Your task to perform on an android device: Show me productivity apps on the Play Store Image 0: 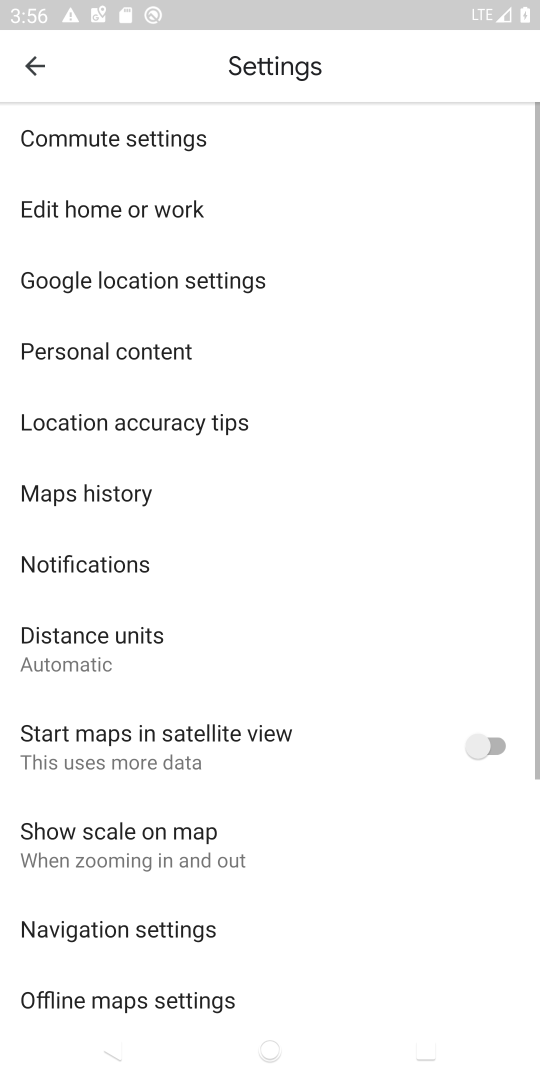
Step 0: press back button
Your task to perform on an android device: Show me productivity apps on the Play Store Image 1: 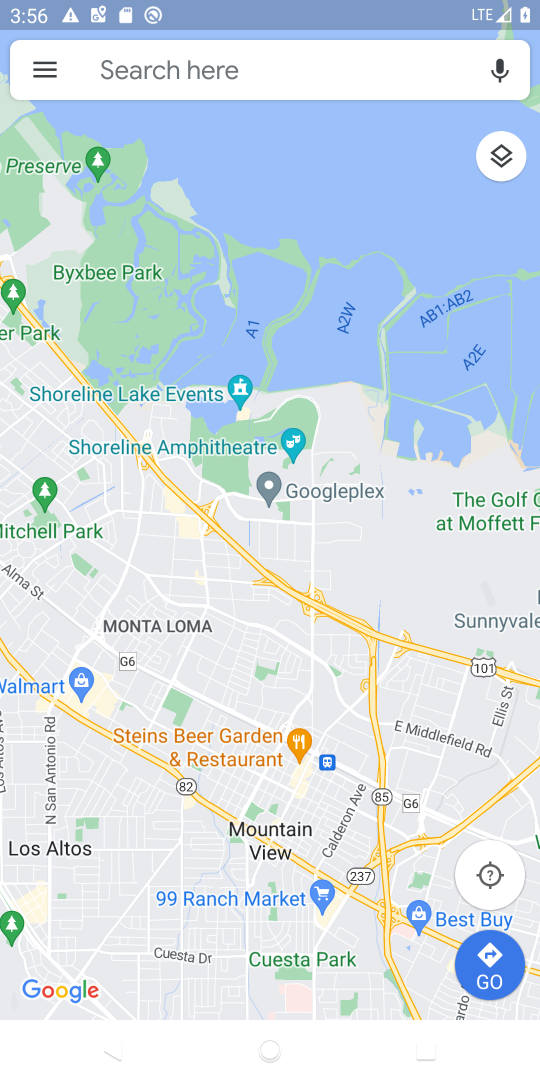
Step 1: press back button
Your task to perform on an android device: Show me productivity apps on the Play Store Image 2: 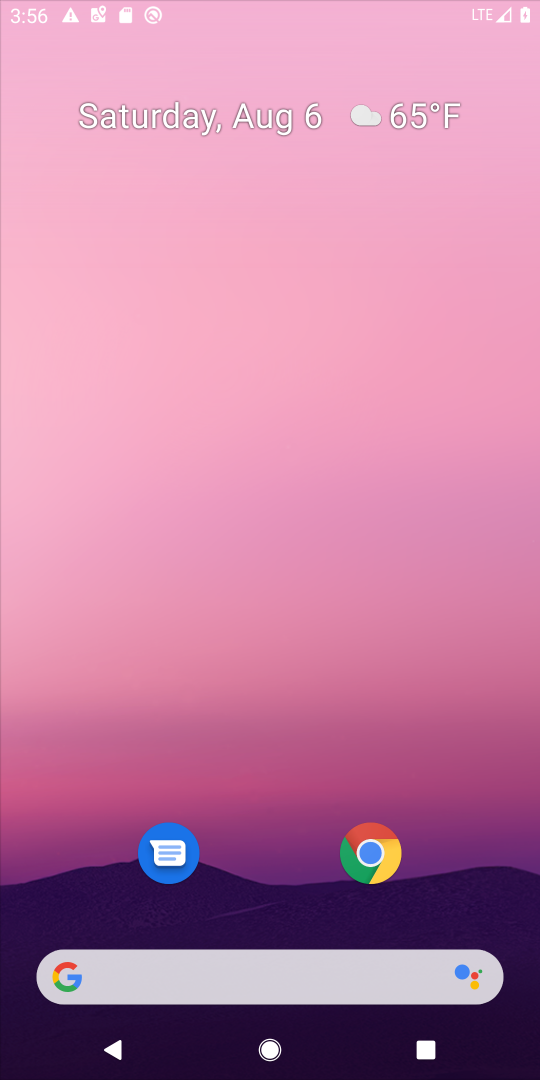
Step 2: press home button
Your task to perform on an android device: Show me productivity apps on the Play Store Image 3: 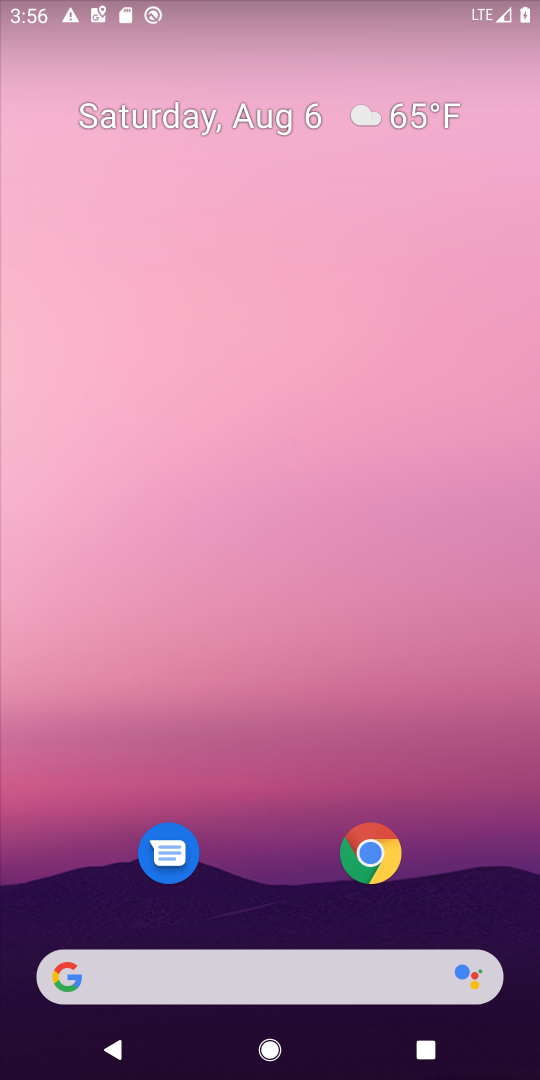
Step 3: drag from (273, 717) to (267, 63)
Your task to perform on an android device: Show me productivity apps on the Play Store Image 4: 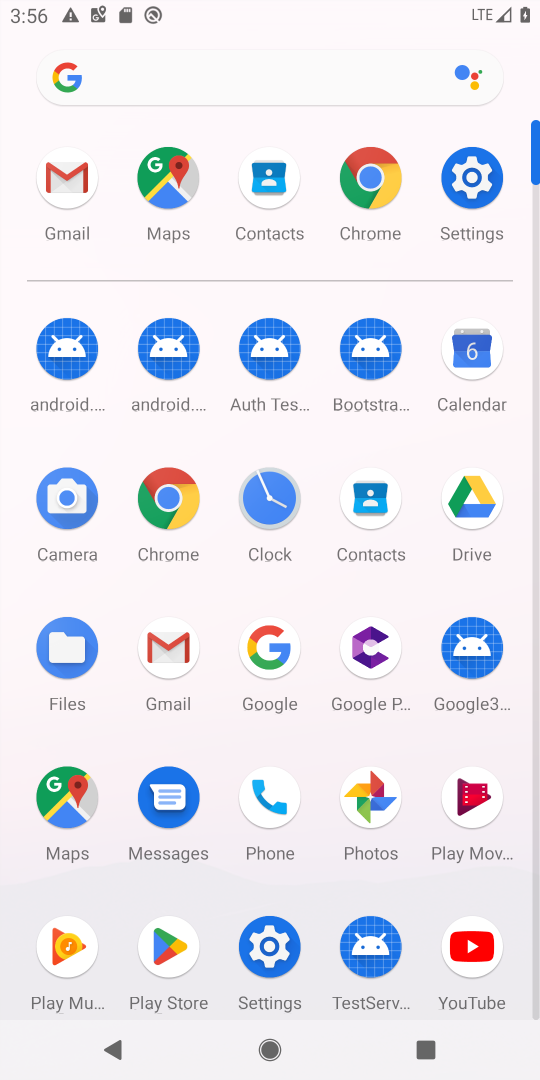
Step 4: click (157, 949)
Your task to perform on an android device: Show me productivity apps on the Play Store Image 5: 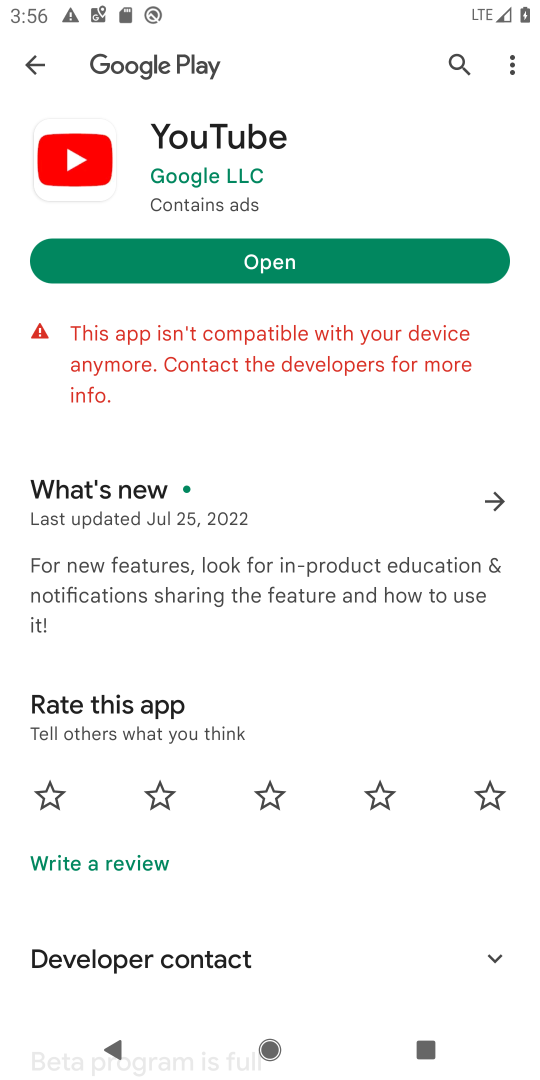
Step 5: click (38, 59)
Your task to perform on an android device: Show me productivity apps on the Play Store Image 6: 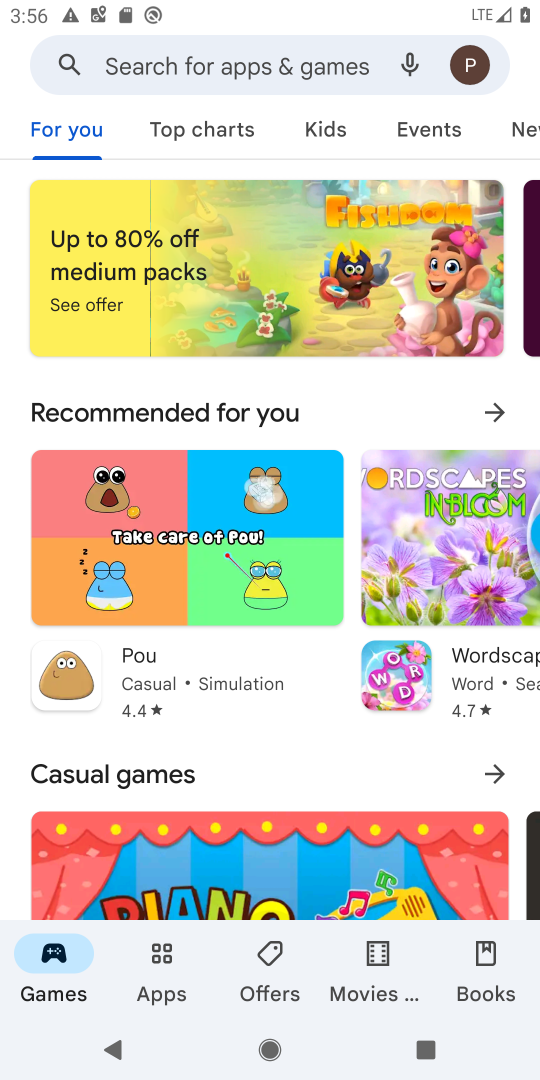
Step 6: click (166, 952)
Your task to perform on an android device: Show me productivity apps on the Play Store Image 7: 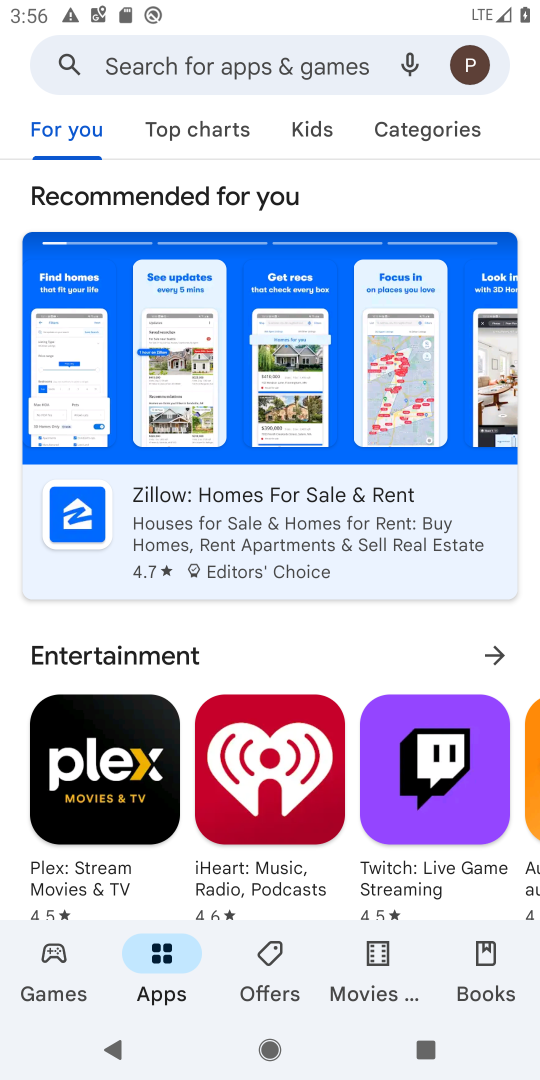
Step 7: drag from (213, 851) to (296, 115)
Your task to perform on an android device: Show me productivity apps on the Play Store Image 8: 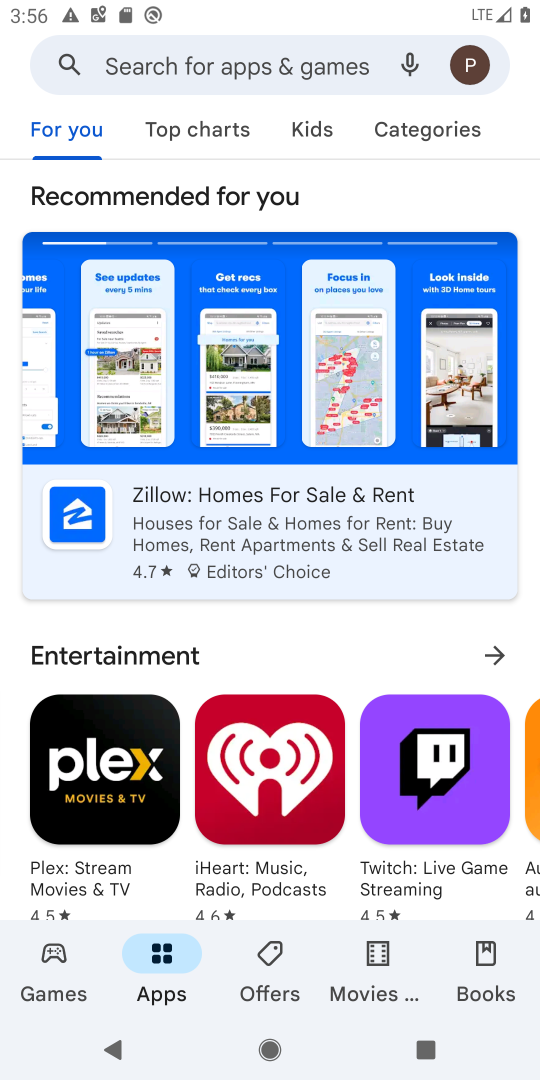
Step 8: drag from (275, 511) to (325, 171)
Your task to perform on an android device: Show me productivity apps on the Play Store Image 9: 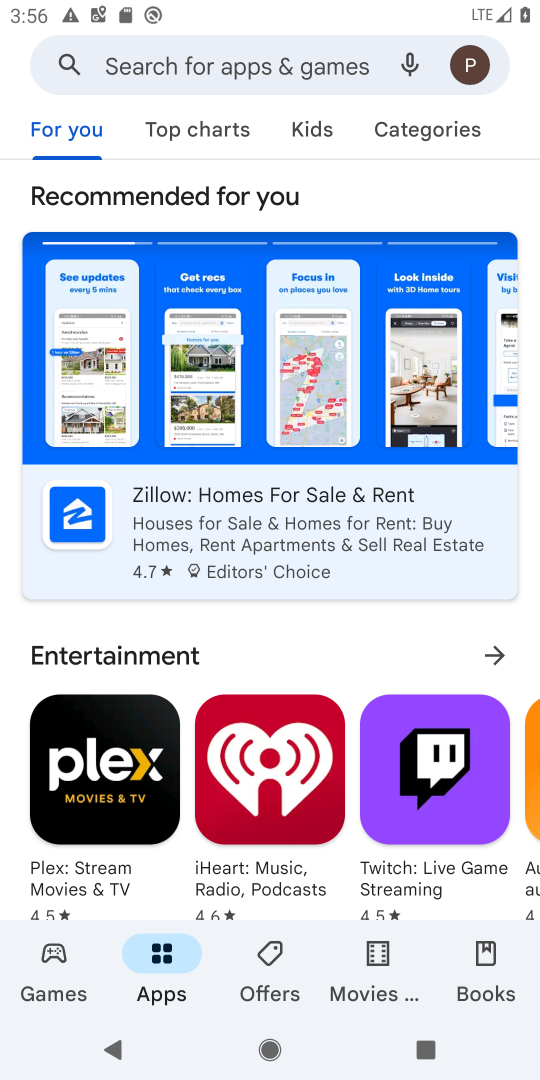
Step 9: drag from (0, 851) to (34, 194)
Your task to perform on an android device: Show me productivity apps on the Play Store Image 10: 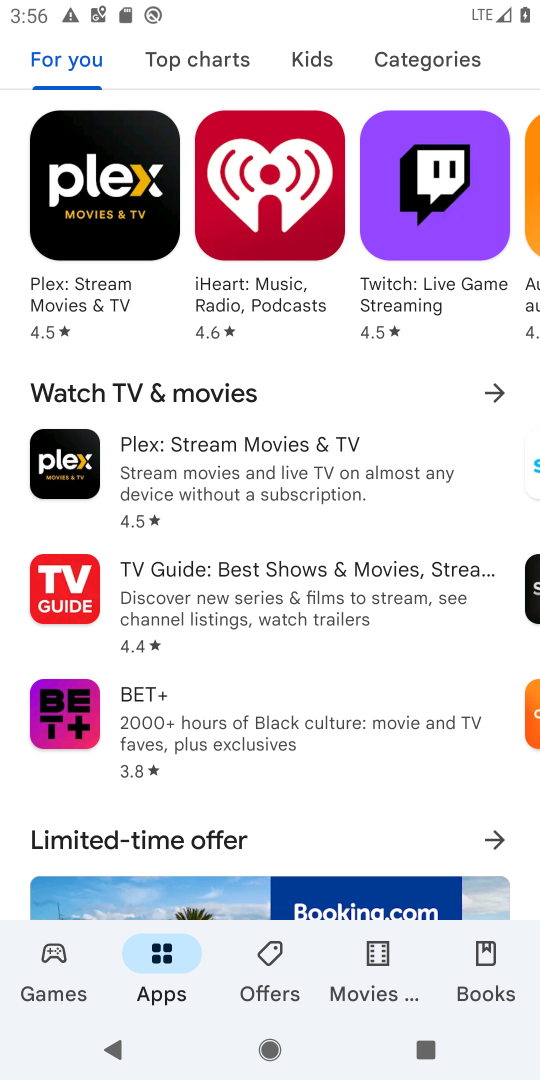
Step 10: drag from (9, 871) to (31, 209)
Your task to perform on an android device: Show me productivity apps on the Play Store Image 11: 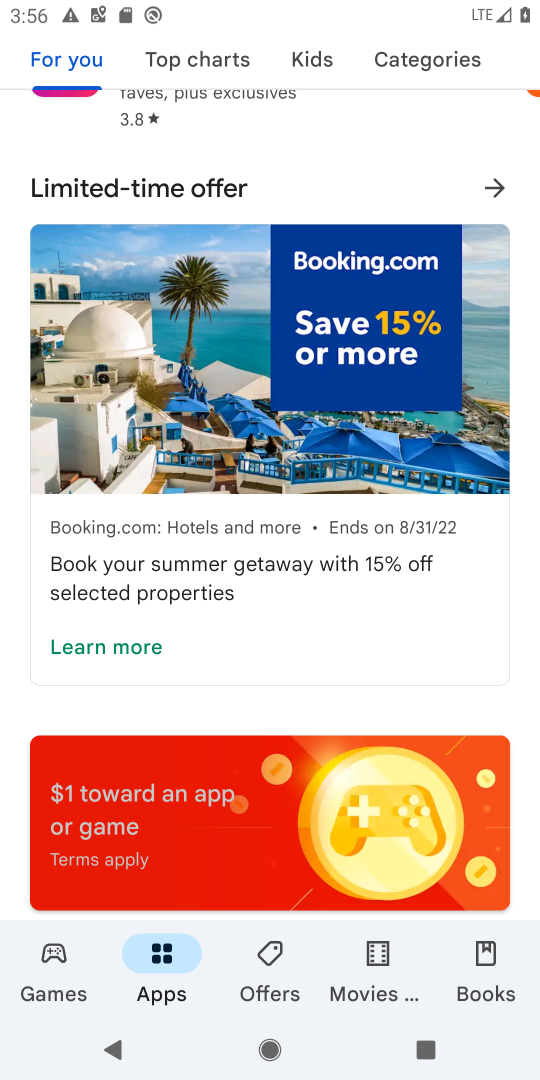
Step 11: drag from (26, 910) to (42, 315)
Your task to perform on an android device: Show me productivity apps on the Play Store Image 12: 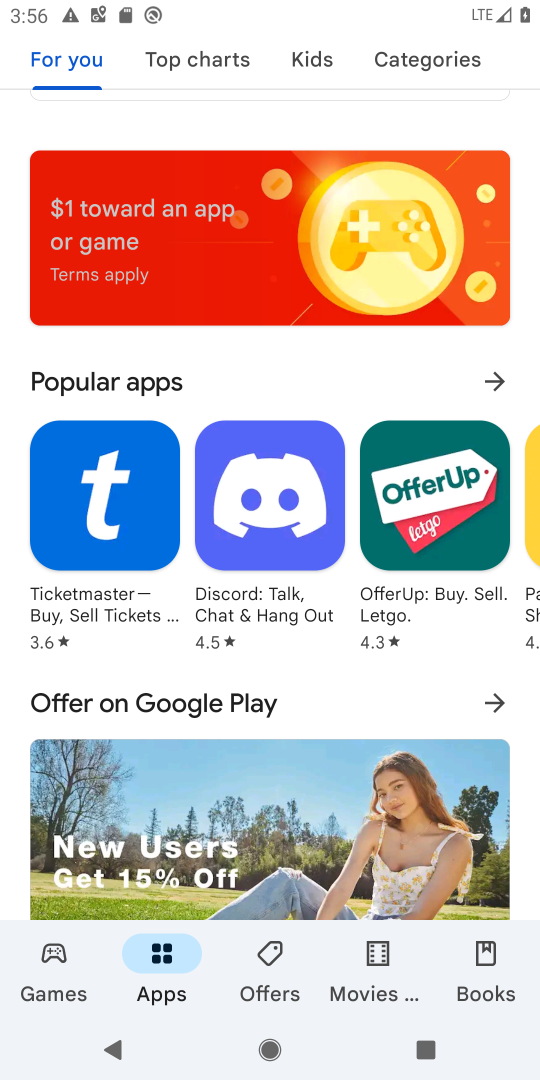
Step 12: drag from (15, 876) to (39, 294)
Your task to perform on an android device: Show me productivity apps on the Play Store Image 13: 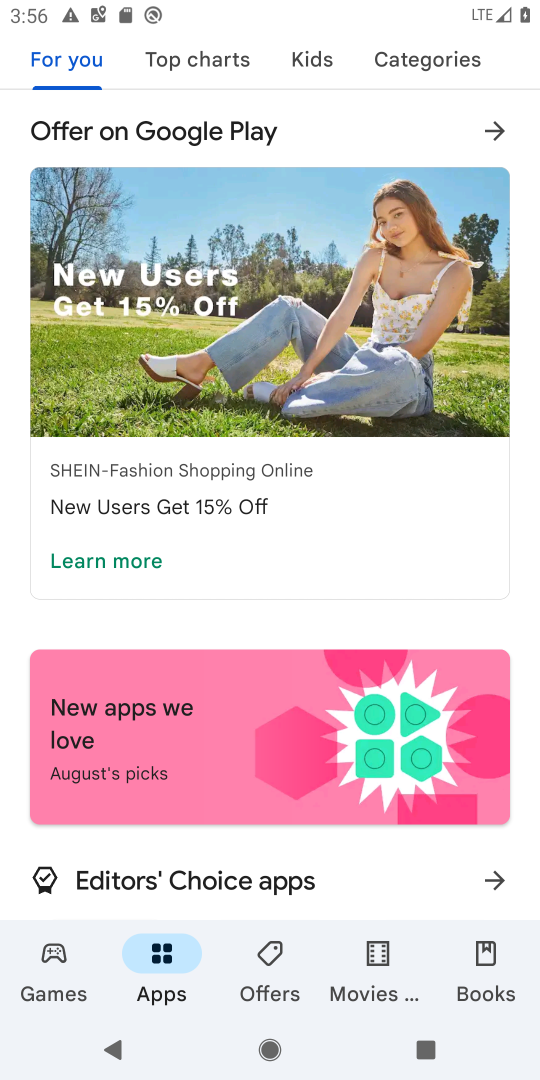
Step 13: drag from (18, 826) to (12, 232)
Your task to perform on an android device: Show me productivity apps on the Play Store Image 14: 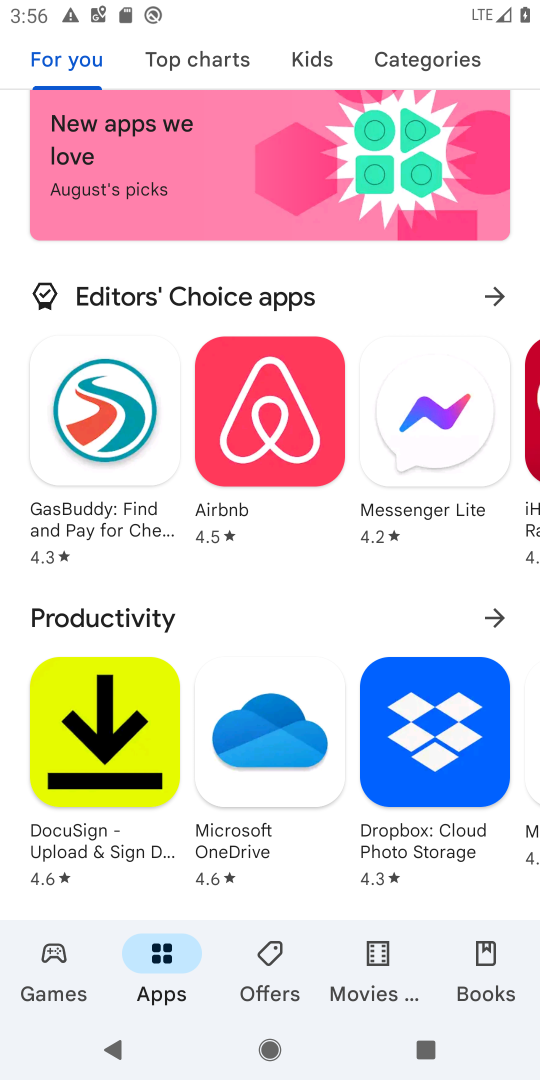
Step 14: click (493, 607)
Your task to perform on an android device: Show me productivity apps on the Play Store Image 15: 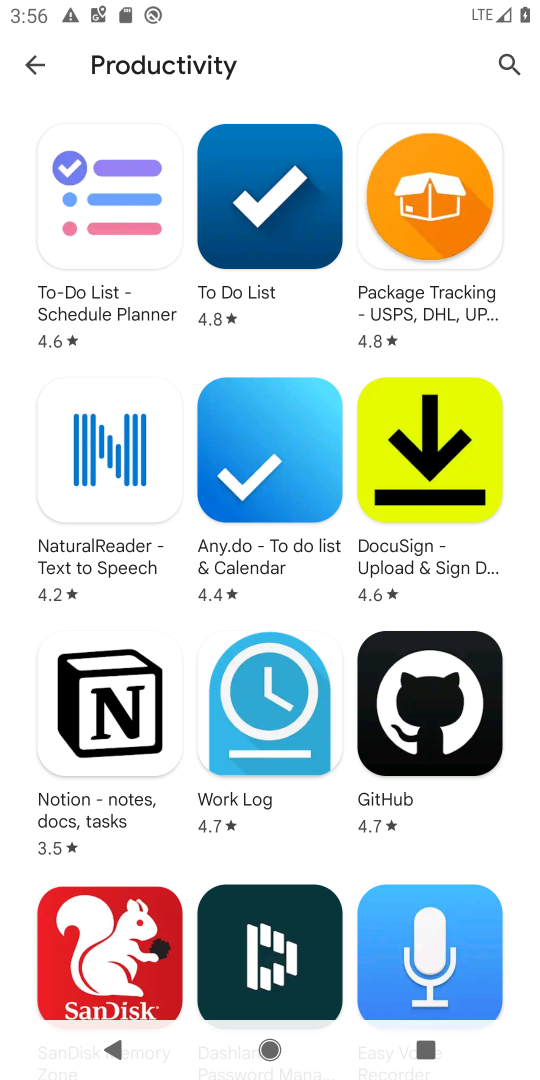
Step 15: task complete